Your task to perform on an android device: check the backup settings in the google photos Image 0: 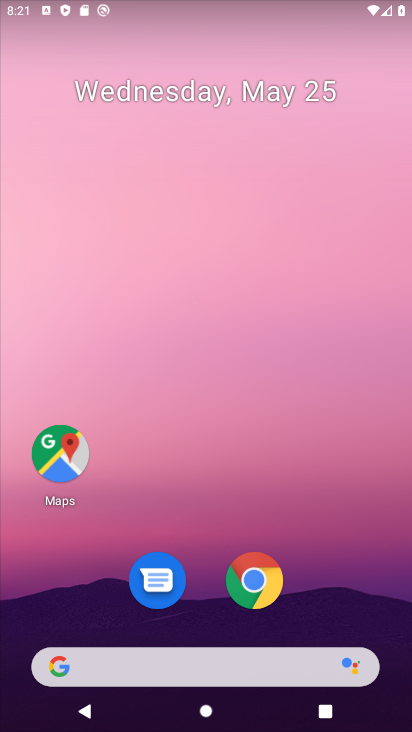
Step 0: drag from (66, 309) to (149, 152)
Your task to perform on an android device: check the backup settings in the google photos Image 1: 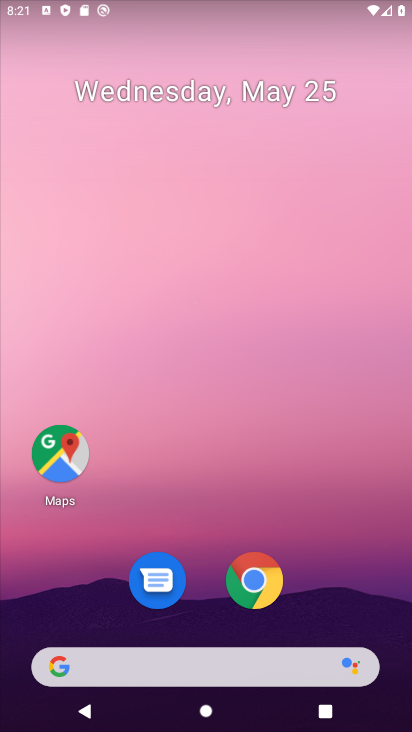
Step 1: drag from (7, 539) to (237, 73)
Your task to perform on an android device: check the backup settings in the google photos Image 2: 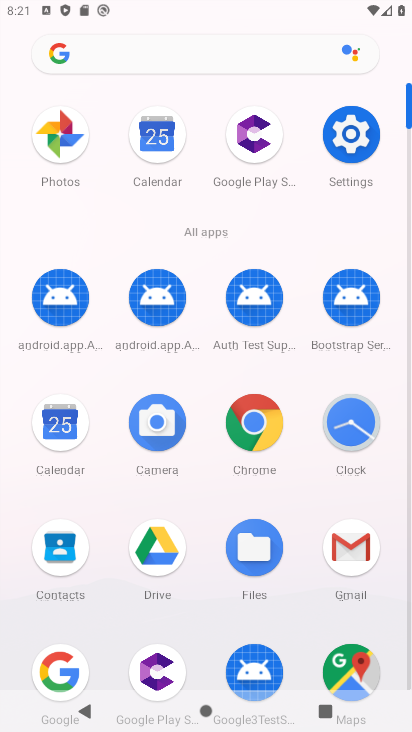
Step 2: click (61, 141)
Your task to perform on an android device: check the backup settings in the google photos Image 3: 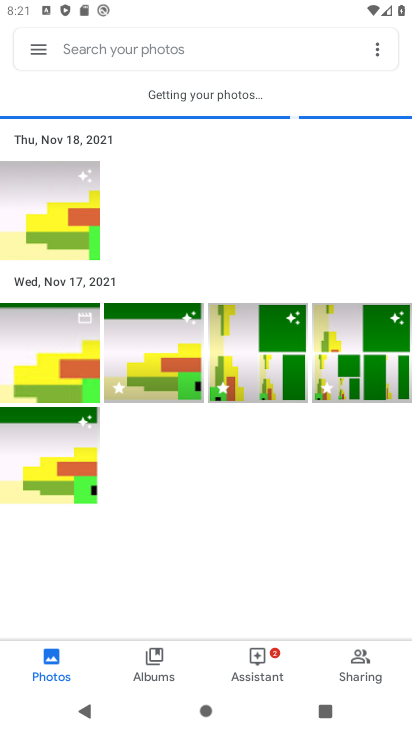
Step 3: click (42, 53)
Your task to perform on an android device: check the backup settings in the google photos Image 4: 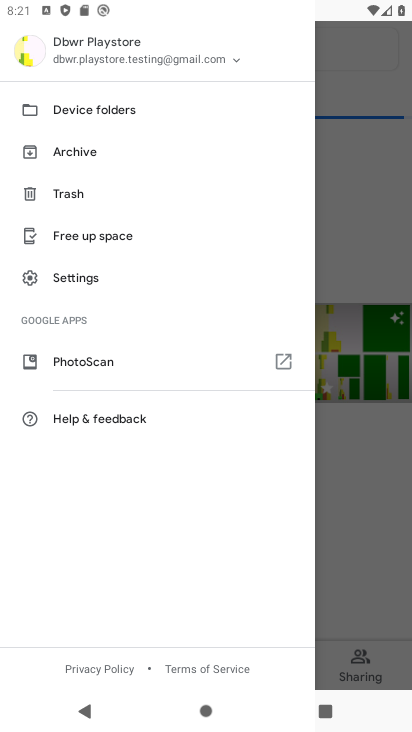
Step 4: click (114, 273)
Your task to perform on an android device: check the backup settings in the google photos Image 5: 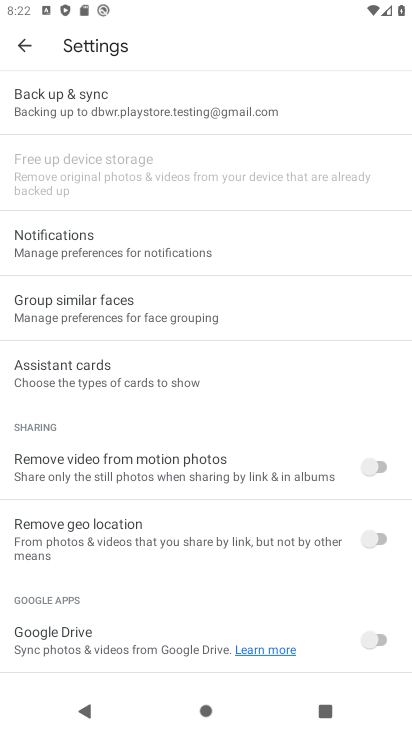
Step 5: click (199, 107)
Your task to perform on an android device: check the backup settings in the google photos Image 6: 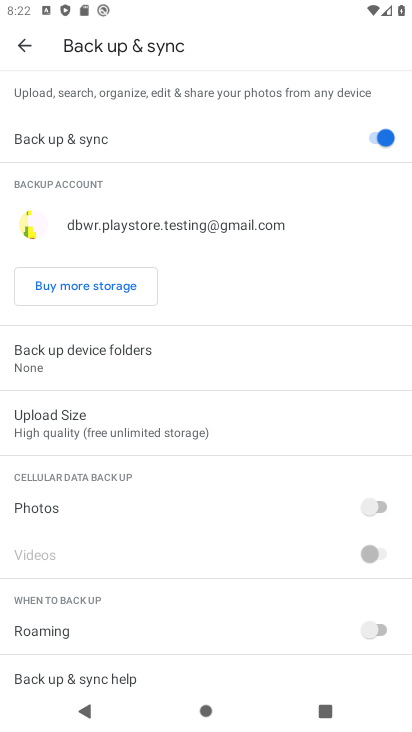
Step 6: task complete